Your task to perform on an android device: Open Wikipedia Image 0: 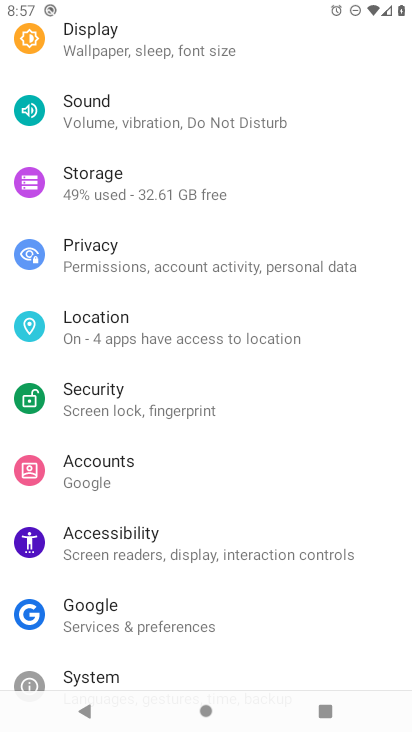
Step 0: press home button
Your task to perform on an android device: Open Wikipedia Image 1: 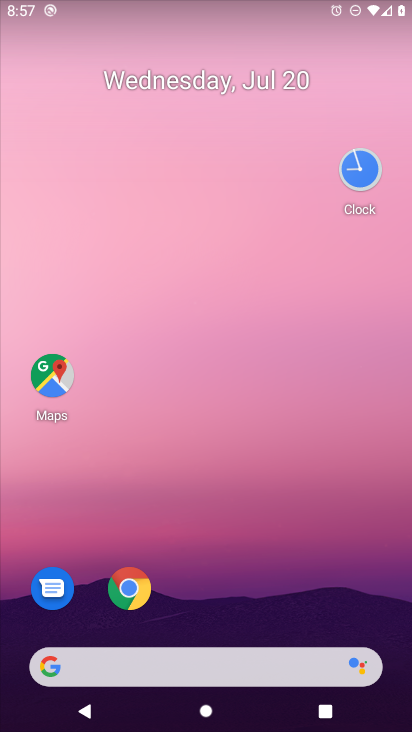
Step 1: click (114, 662)
Your task to perform on an android device: Open Wikipedia Image 2: 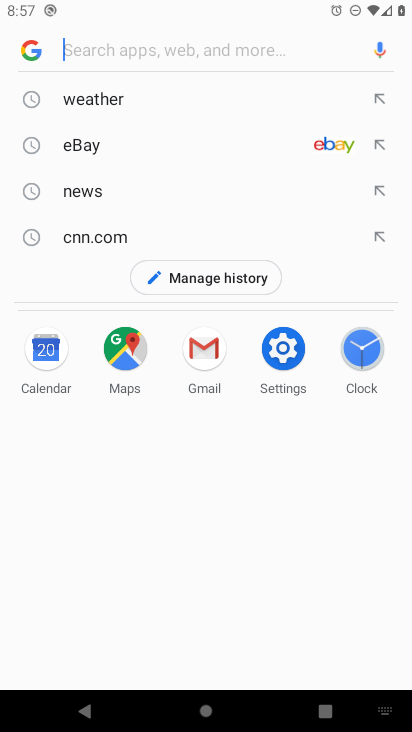
Step 2: type "Wikipedia"
Your task to perform on an android device: Open Wikipedia Image 3: 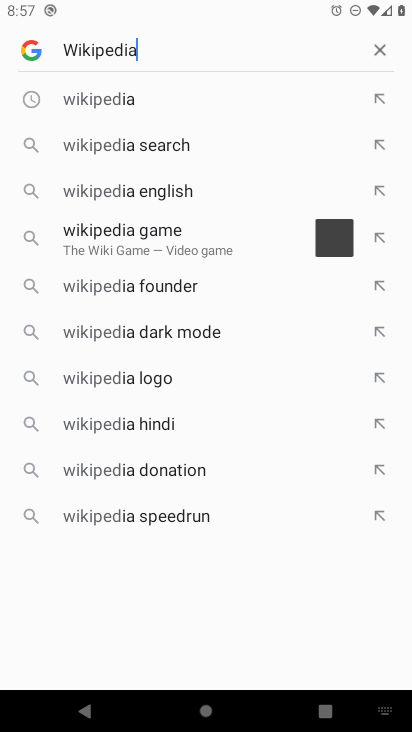
Step 3: type ""
Your task to perform on an android device: Open Wikipedia Image 4: 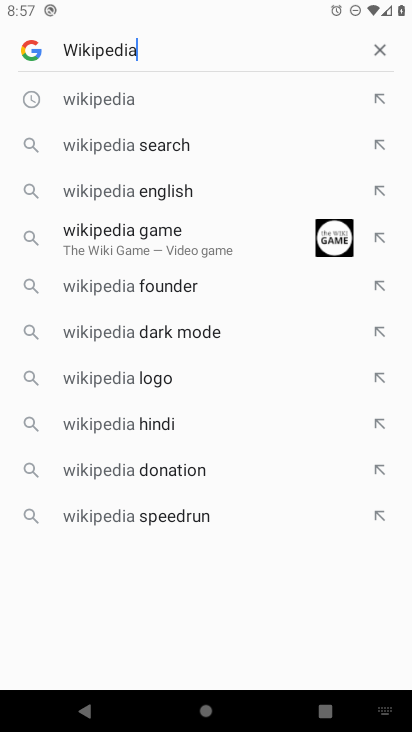
Step 4: click (84, 103)
Your task to perform on an android device: Open Wikipedia Image 5: 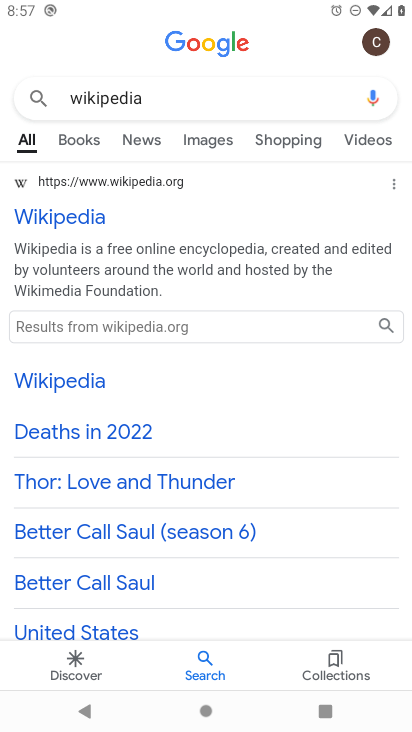
Step 5: task complete